Your task to perform on an android device: turn off smart reply in the gmail app Image 0: 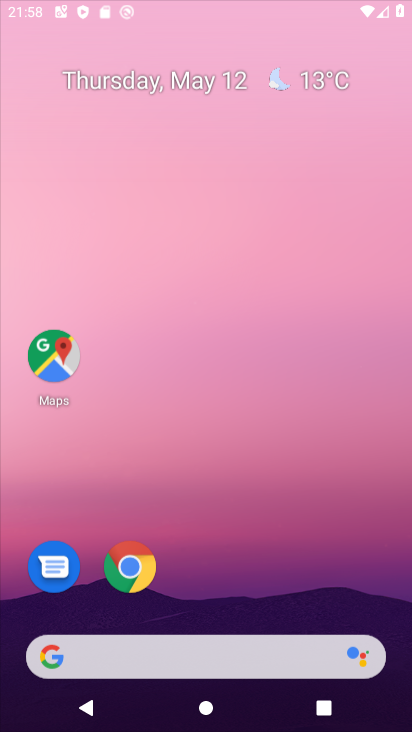
Step 0: click (177, 9)
Your task to perform on an android device: turn off smart reply in the gmail app Image 1: 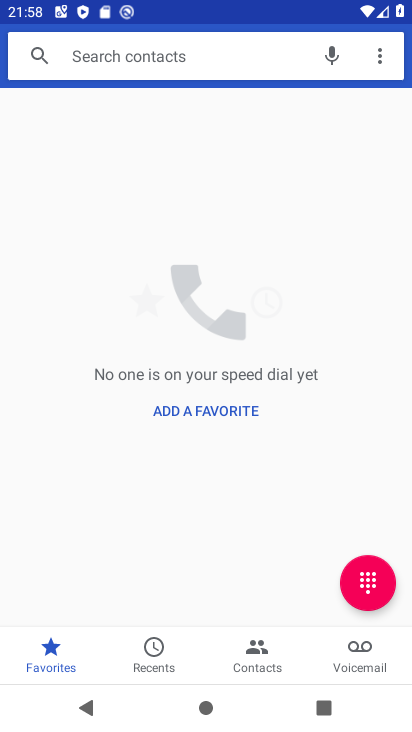
Step 1: press home button
Your task to perform on an android device: turn off smart reply in the gmail app Image 2: 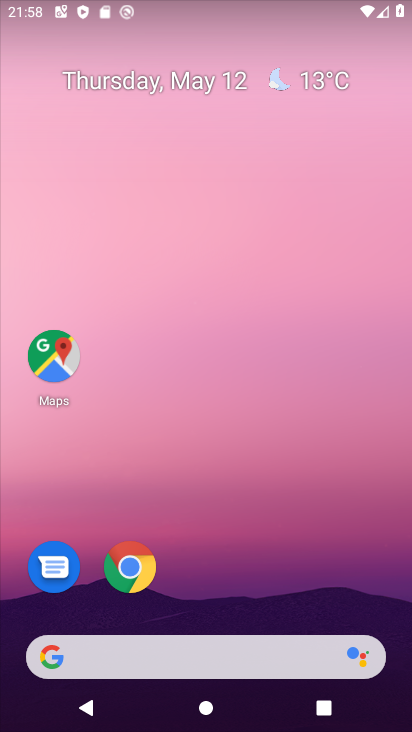
Step 2: drag from (222, 603) to (229, 48)
Your task to perform on an android device: turn off smart reply in the gmail app Image 3: 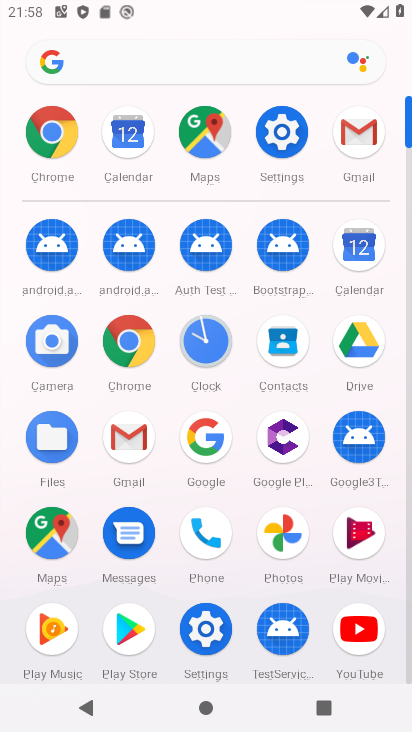
Step 3: click (126, 432)
Your task to perform on an android device: turn off smart reply in the gmail app Image 4: 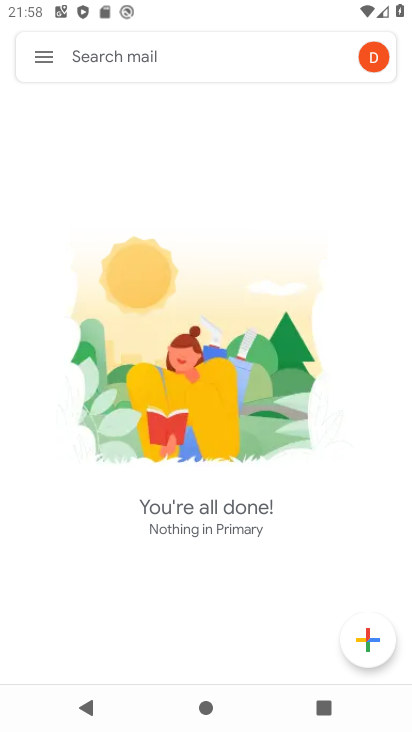
Step 4: click (41, 61)
Your task to perform on an android device: turn off smart reply in the gmail app Image 5: 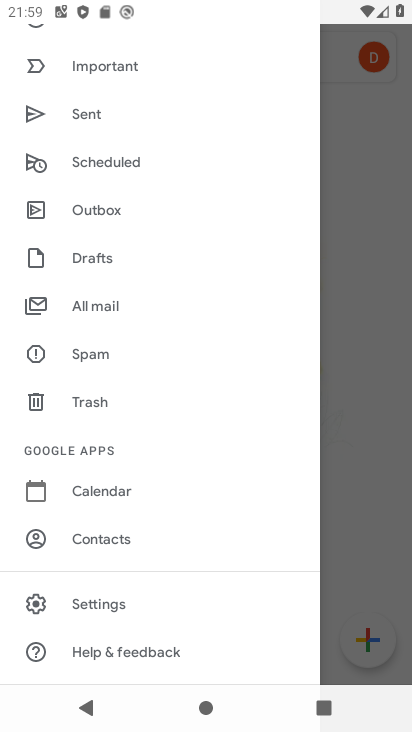
Step 5: click (137, 598)
Your task to perform on an android device: turn off smart reply in the gmail app Image 6: 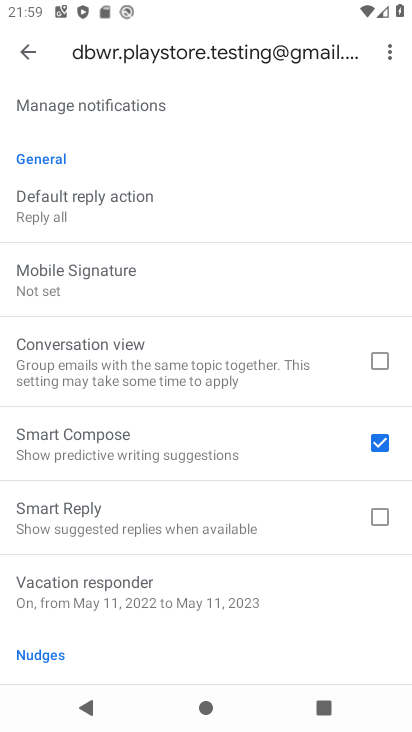
Step 6: task complete